Your task to perform on an android device: Search for Italian restaurants on Maps Image 0: 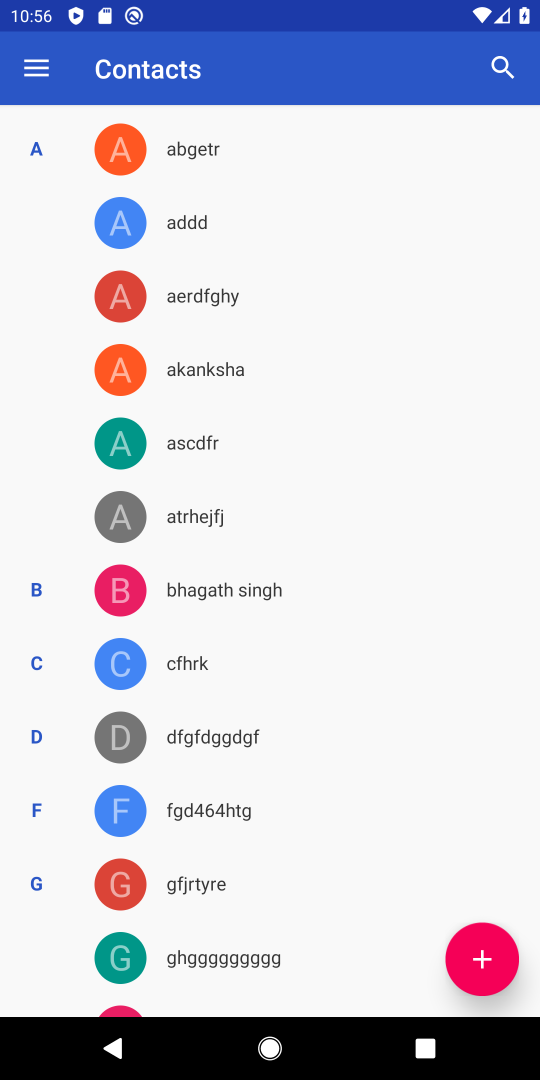
Step 0: press home button
Your task to perform on an android device: Search for Italian restaurants on Maps Image 1: 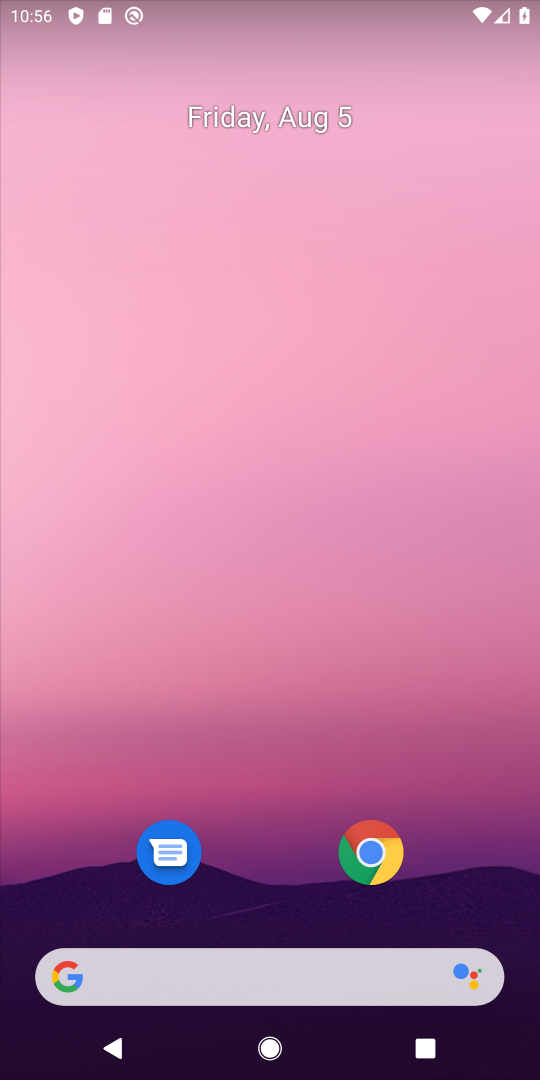
Step 1: drag from (162, 941) to (214, 574)
Your task to perform on an android device: Search for Italian restaurants on Maps Image 2: 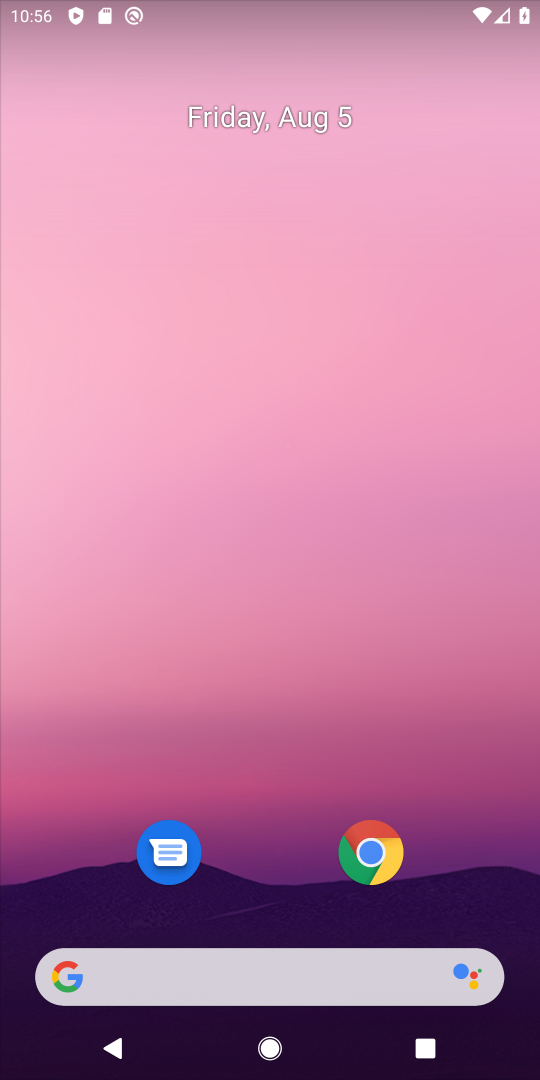
Step 2: drag from (262, 921) to (329, 543)
Your task to perform on an android device: Search for Italian restaurants on Maps Image 3: 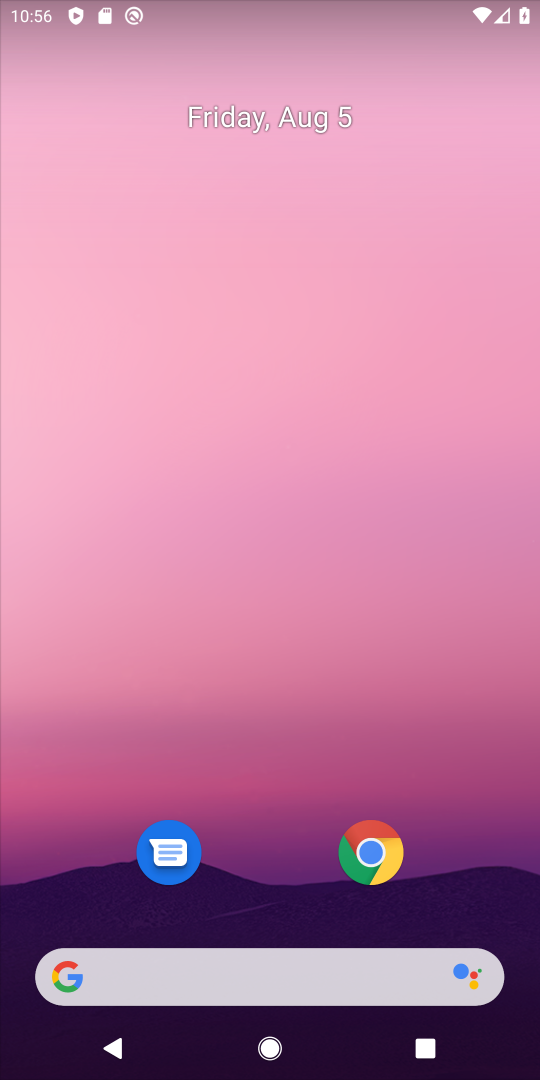
Step 3: drag from (233, 943) to (227, 400)
Your task to perform on an android device: Search for Italian restaurants on Maps Image 4: 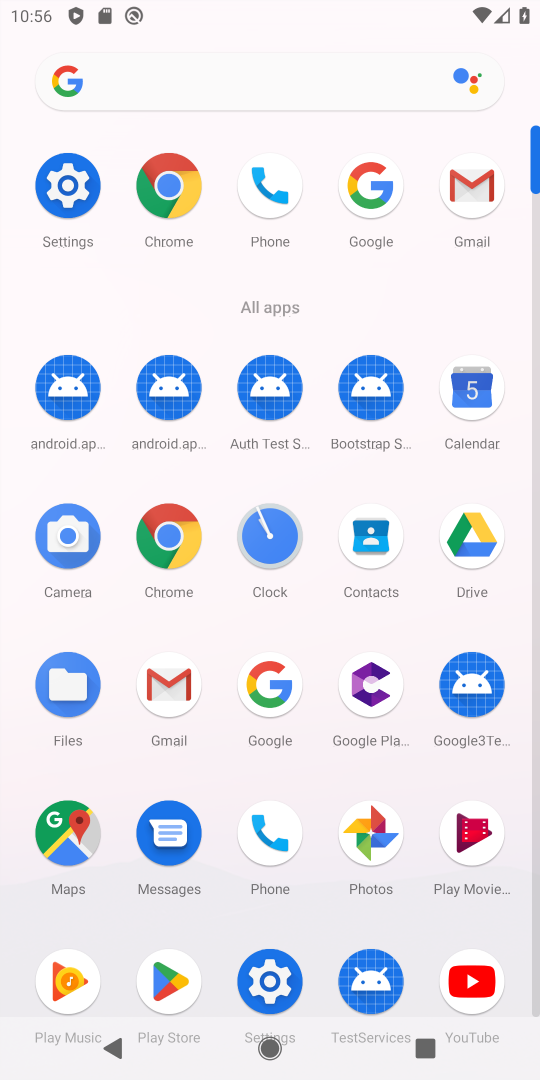
Step 4: click (72, 847)
Your task to perform on an android device: Search for Italian restaurants on Maps Image 5: 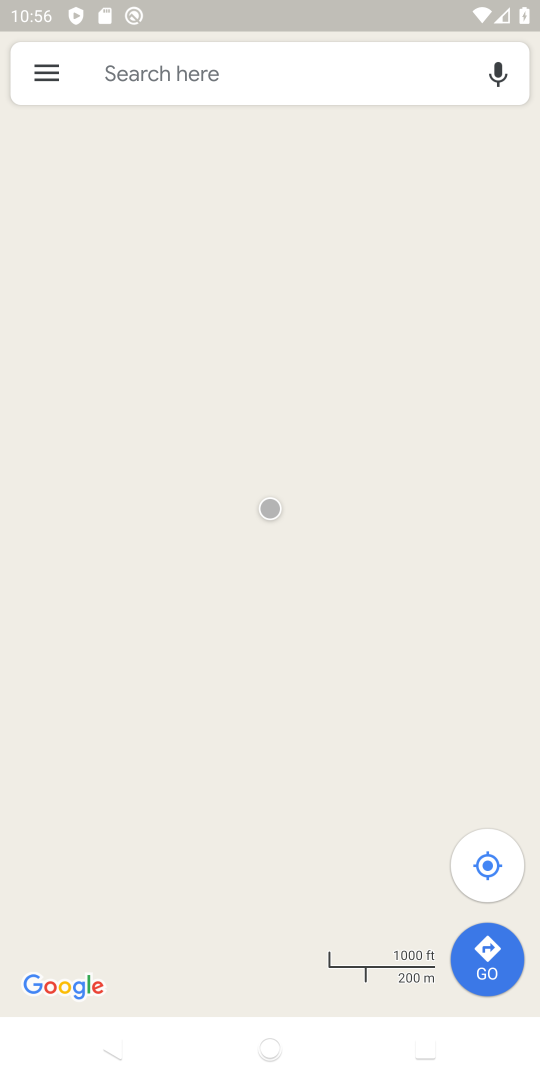
Step 5: click (227, 72)
Your task to perform on an android device: Search for Italian restaurants on Maps Image 6: 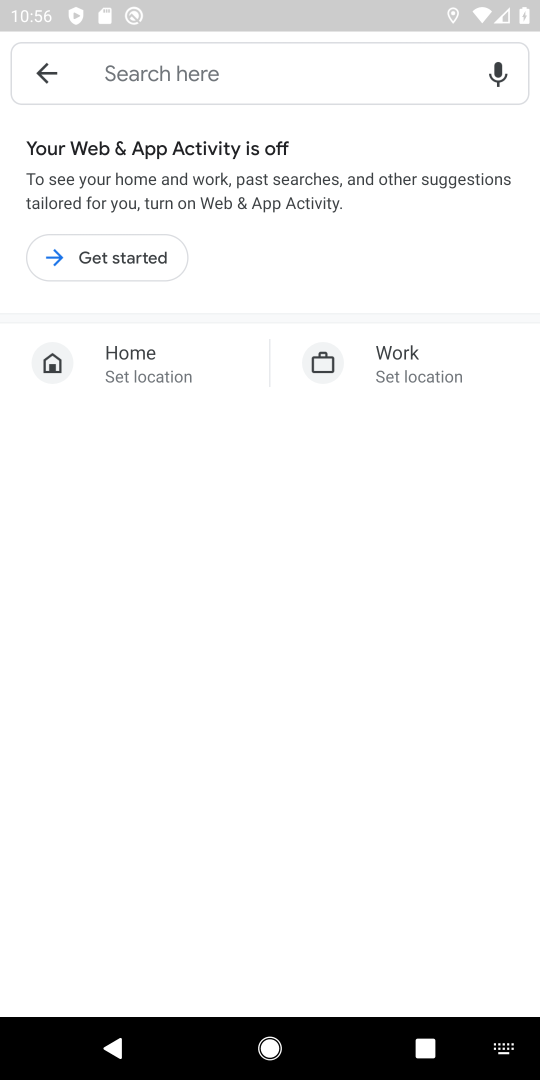
Step 6: click (148, 77)
Your task to perform on an android device: Search for Italian restaurants on Maps Image 7: 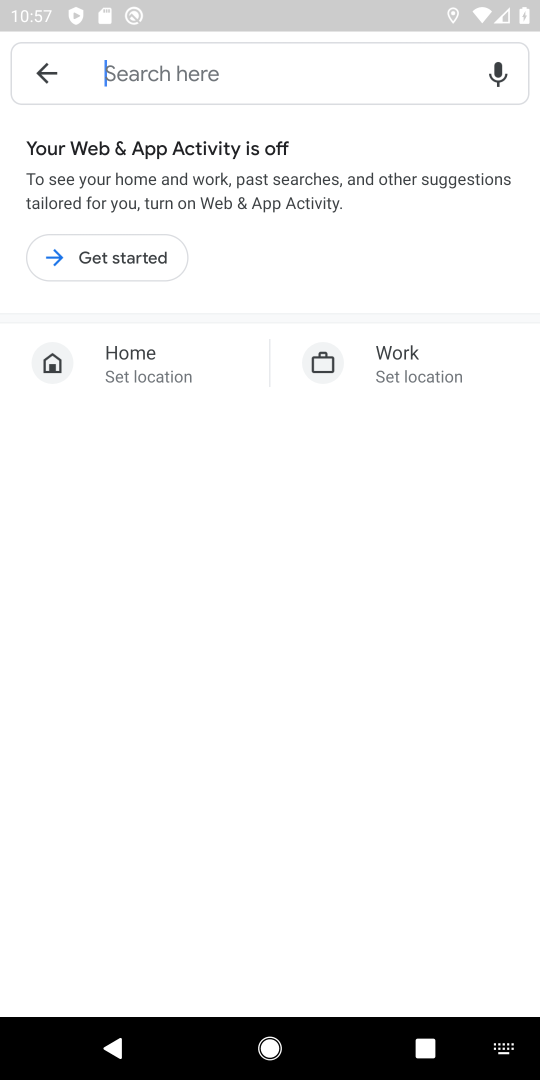
Step 7: click (148, 77)
Your task to perform on an android device: Search for Italian restaurants on Maps Image 8: 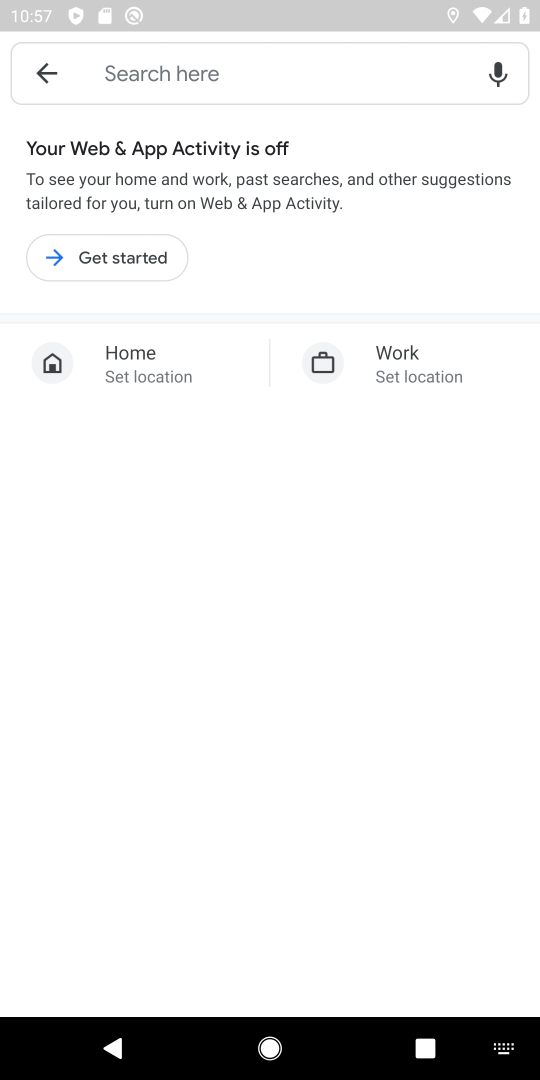
Step 8: click (187, 59)
Your task to perform on an android device: Search for Italian restaurants on Maps Image 9: 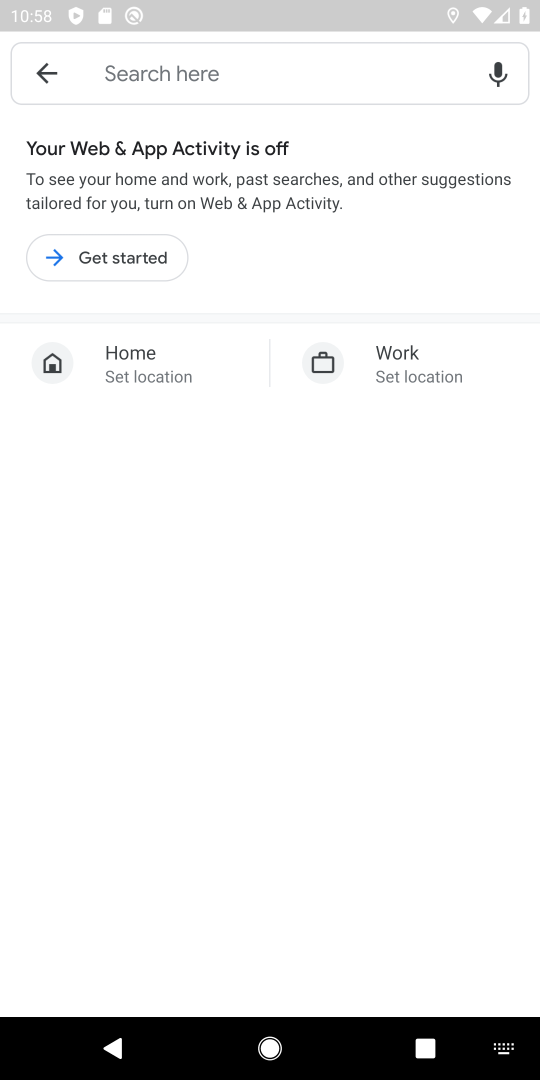
Step 9: click (118, 74)
Your task to perform on an android device: Search for Italian restaurants on Maps Image 10: 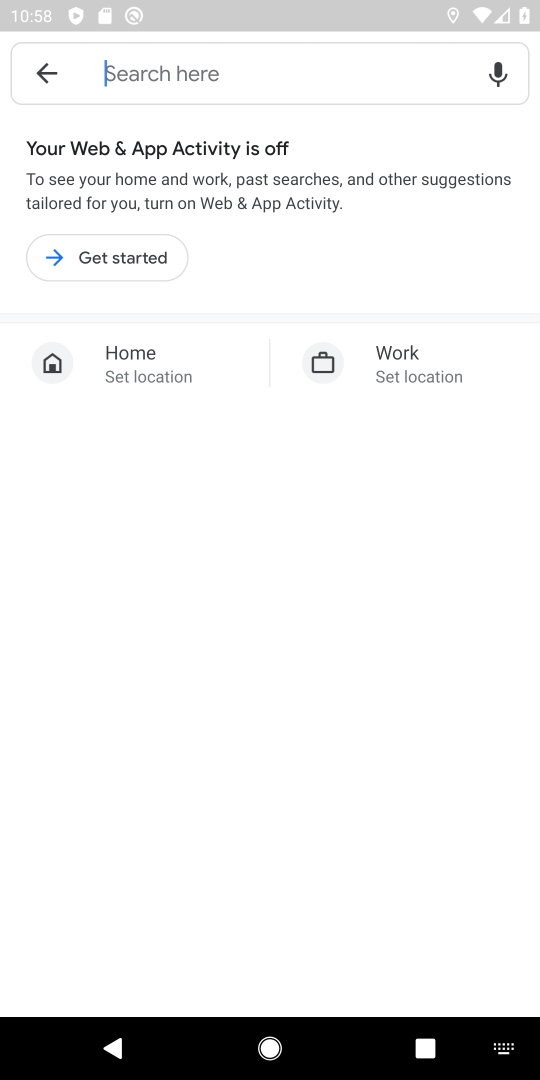
Step 10: click (106, 68)
Your task to perform on an android device: Search for Italian restaurants on Maps Image 11: 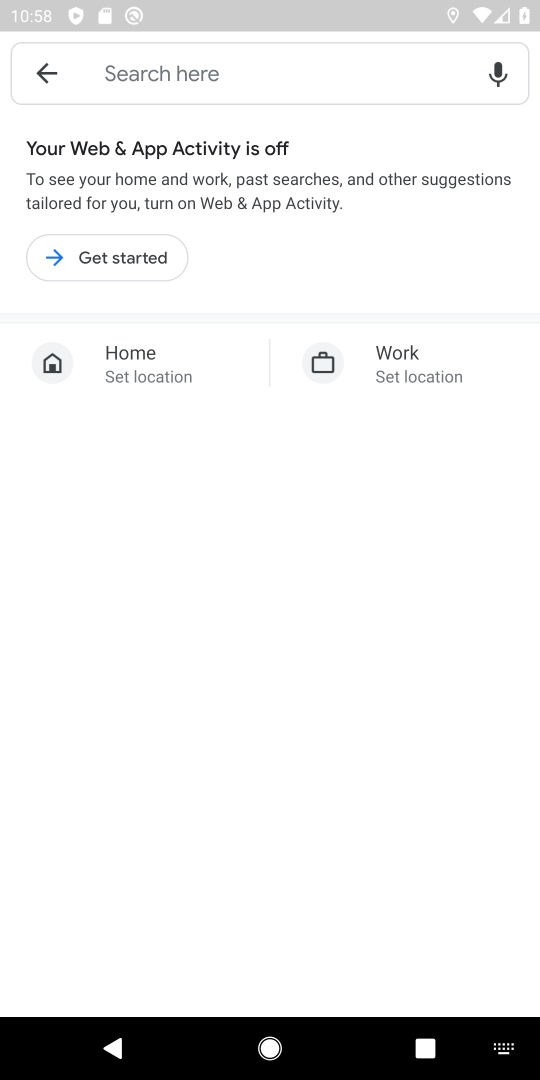
Step 11: type "Italian restaurants"
Your task to perform on an android device: Search for Italian restaurants on Maps Image 12: 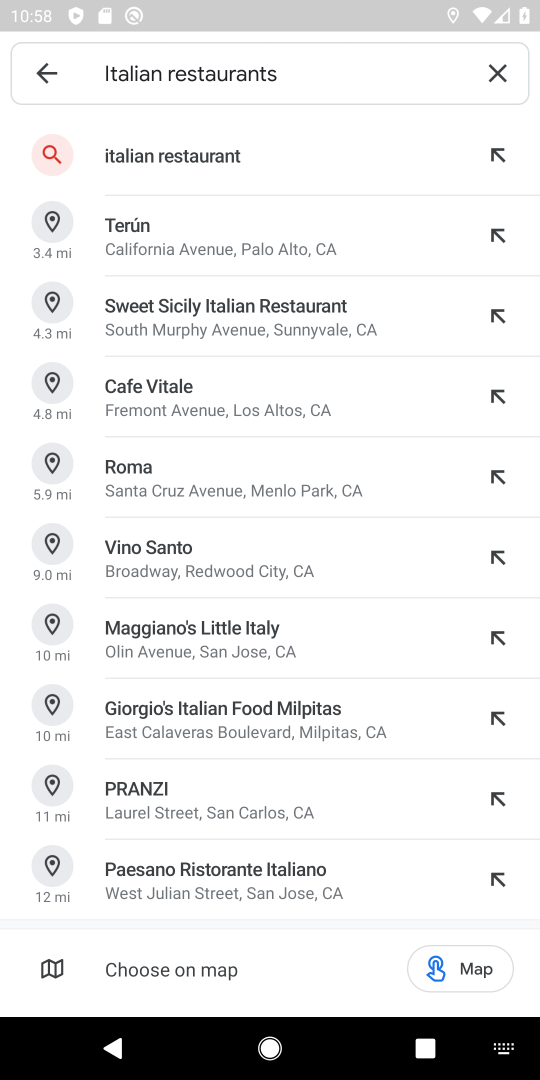
Step 12: click (178, 159)
Your task to perform on an android device: Search for Italian restaurants on Maps Image 13: 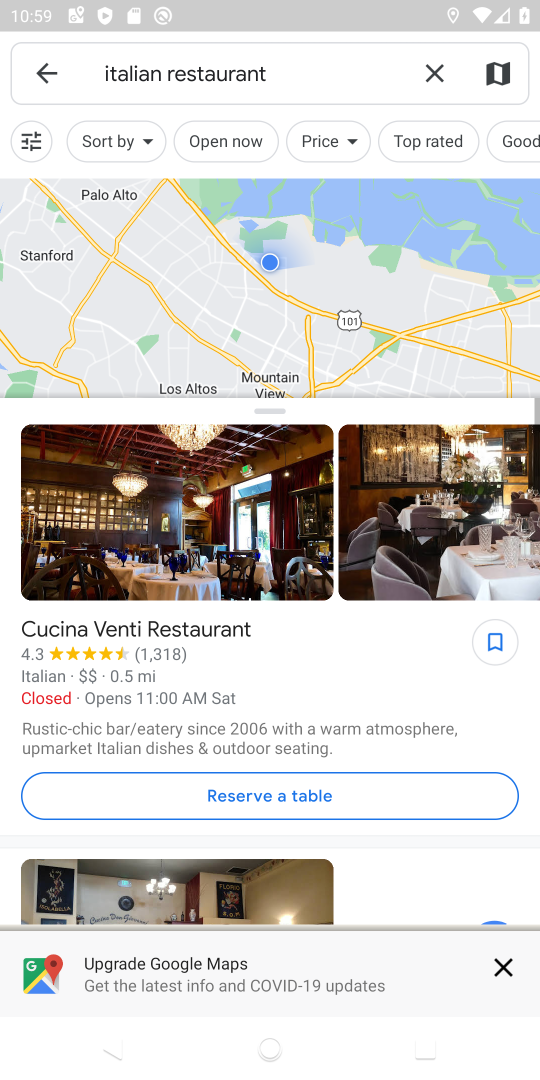
Step 13: task complete